Your task to perform on an android device: show emergency info Image 0: 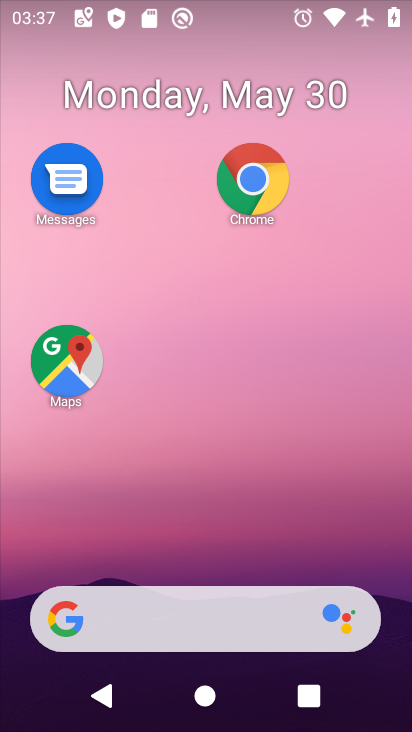
Step 0: drag from (227, 558) to (227, 38)
Your task to perform on an android device: show emergency info Image 1: 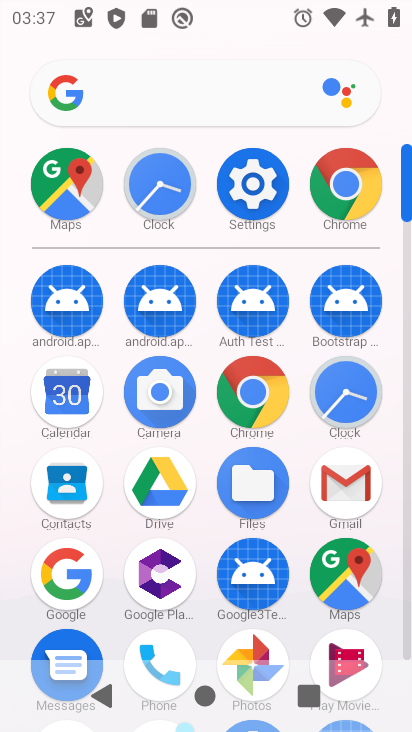
Step 1: click (246, 190)
Your task to perform on an android device: show emergency info Image 2: 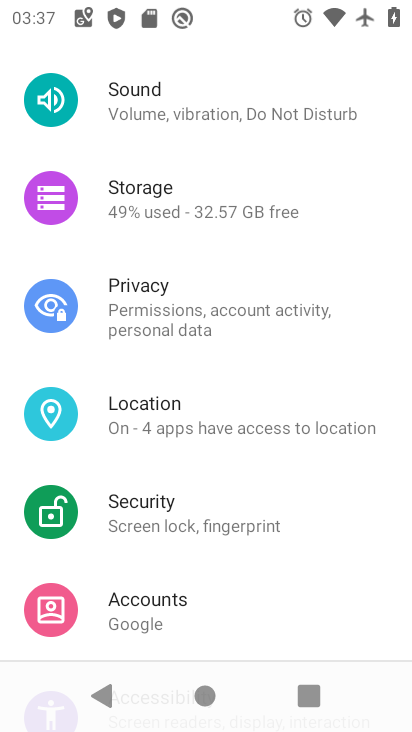
Step 2: drag from (175, 125) to (111, 680)
Your task to perform on an android device: show emergency info Image 3: 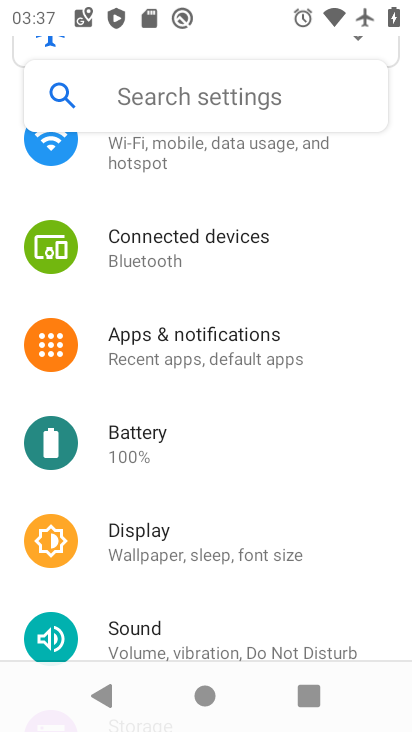
Step 3: drag from (180, 245) to (159, 722)
Your task to perform on an android device: show emergency info Image 4: 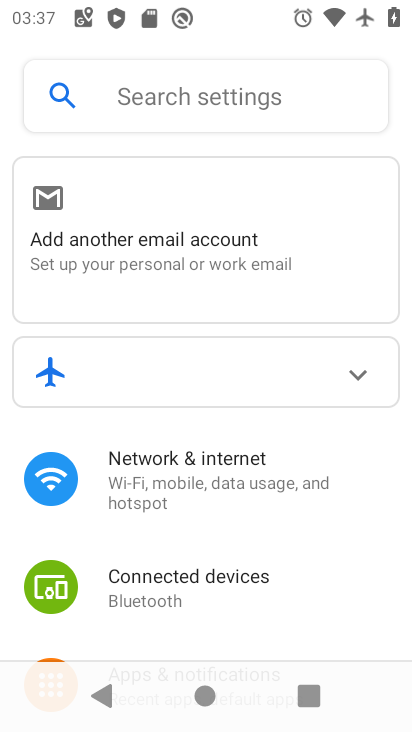
Step 4: drag from (185, 611) to (411, 353)
Your task to perform on an android device: show emergency info Image 5: 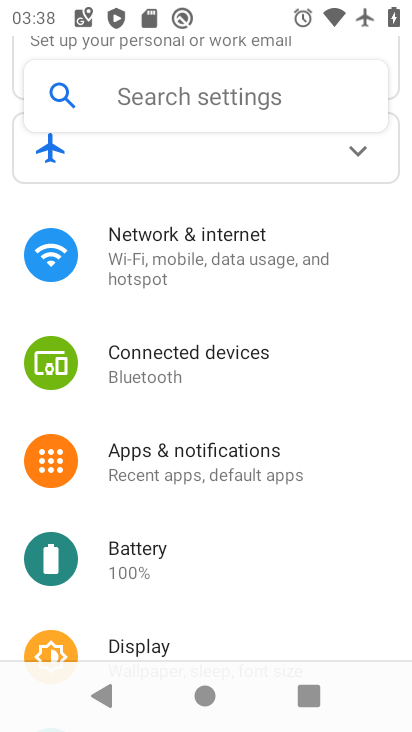
Step 5: drag from (150, 558) to (288, 6)
Your task to perform on an android device: show emergency info Image 6: 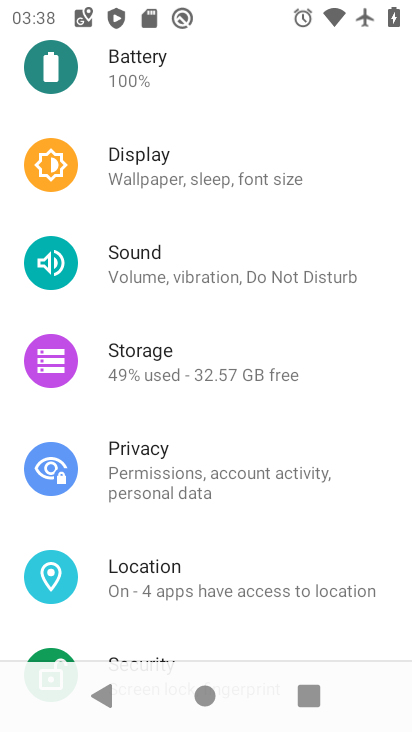
Step 6: drag from (136, 605) to (410, 9)
Your task to perform on an android device: show emergency info Image 7: 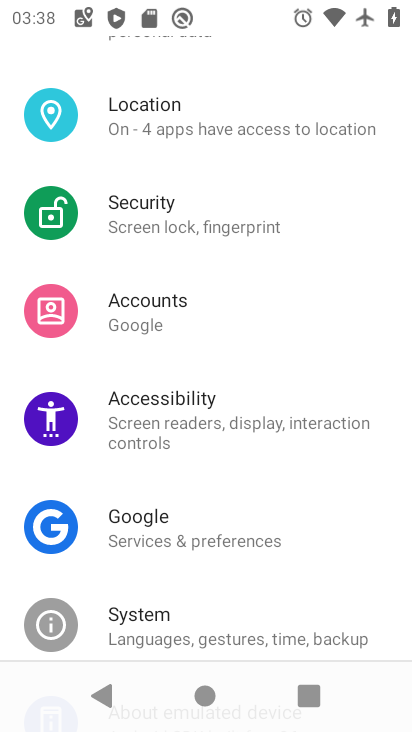
Step 7: drag from (166, 615) to (175, 73)
Your task to perform on an android device: show emergency info Image 8: 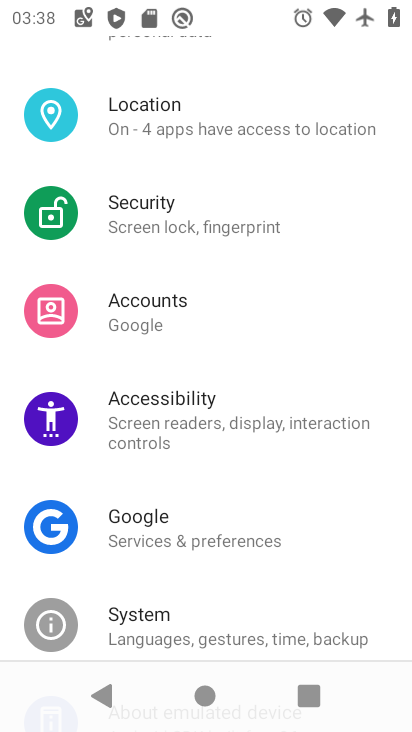
Step 8: drag from (207, 555) to (226, 74)
Your task to perform on an android device: show emergency info Image 9: 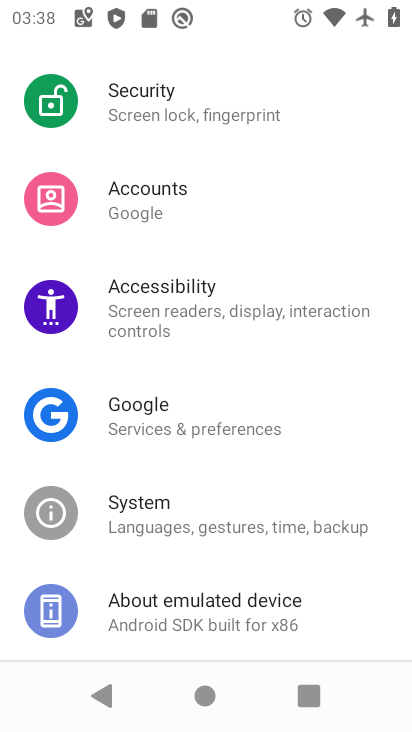
Step 9: click (177, 605)
Your task to perform on an android device: show emergency info Image 10: 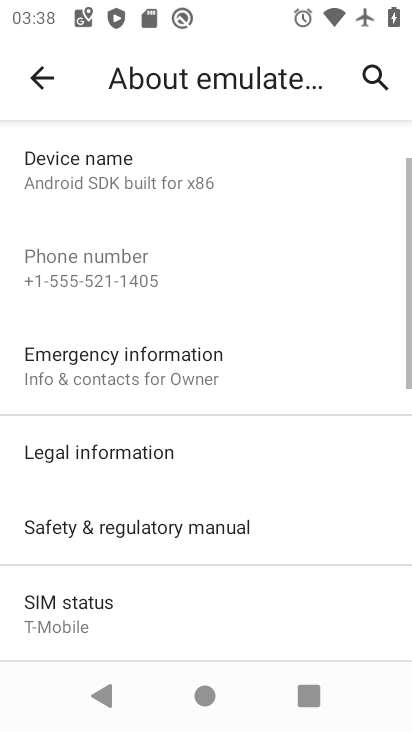
Step 10: drag from (211, 616) to (279, 18)
Your task to perform on an android device: show emergency info Image 11: 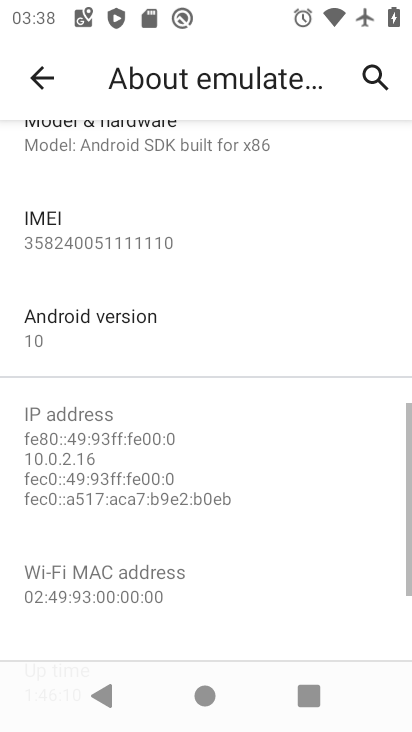
Step 11: drag from (203, 253) to (28, 531)
Your task to perform on an android device: show emergency info Image 12: 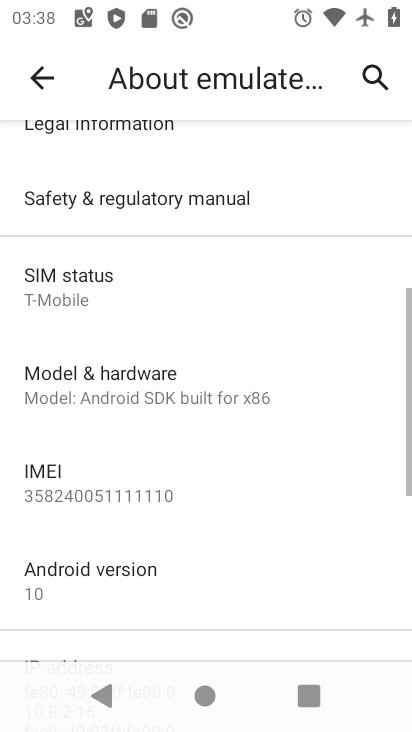
Step 12: drag from (107, 471) to (44, 626)
Your task to perform on an android device: show emergency info Image 13: 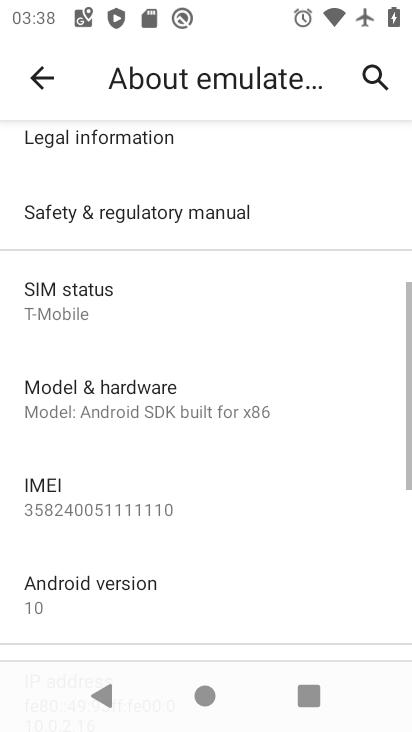
Step 13: drag from (221, 254) to (117, 686)
Your task to perform on an android device: show emergency info Image 14: 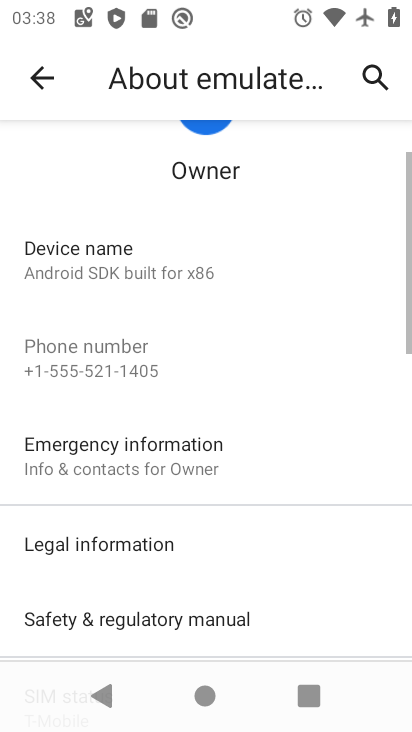
Step 14: click (166, 463)
Your task to perform on an android device: show emergency info Image 15: 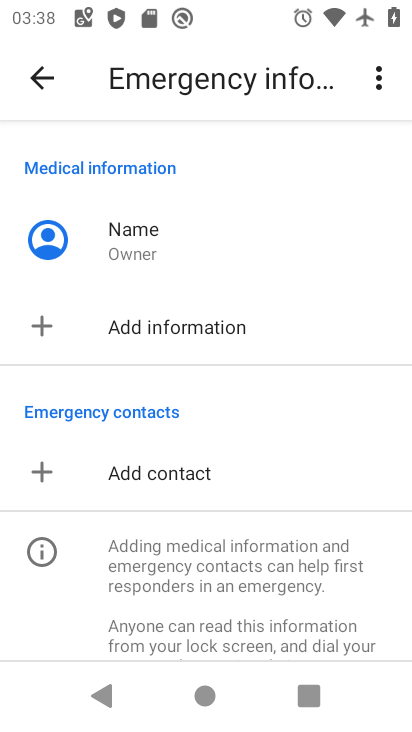
Step 15: task complete